Your task to perform on an android device: Go to Maps Image 0: 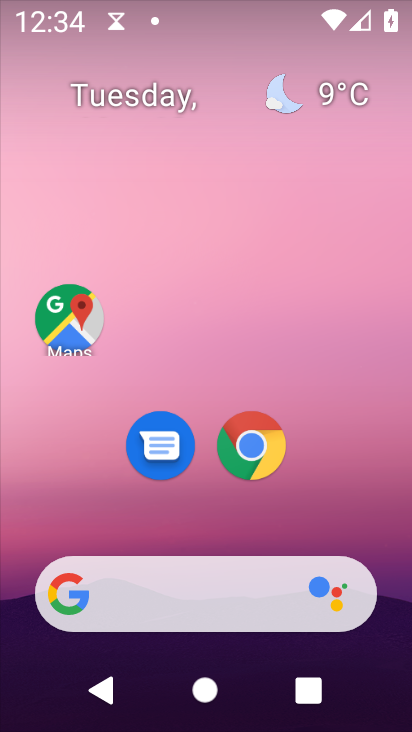
Step 0: drag from (347, 580) to (333, 68)
Your task to perform on an android device: Go to Maps Image 1: 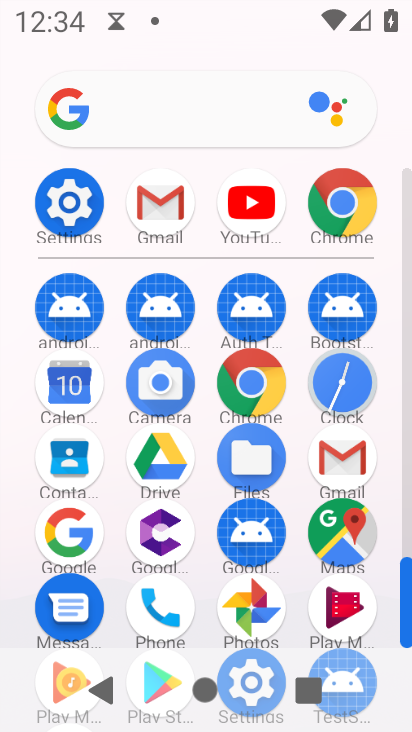
Step 1: click (317, 532)
Your task to perform on an android device: Go to Maps Image 2: 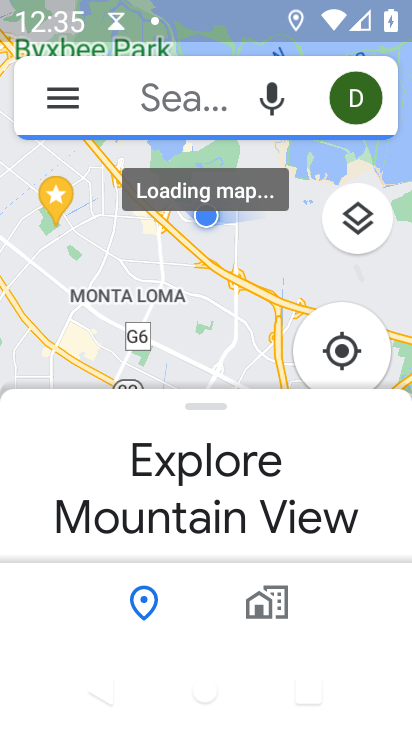
Step 2: press back button
Your task to perform on an android device: Go to Maps Image 3: 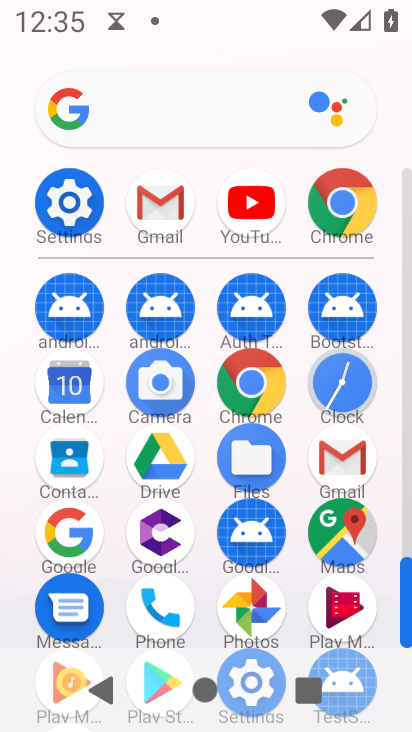
Step 3: click (338, 516)
Your task to perform on an android device: Go to Maps Image 4: 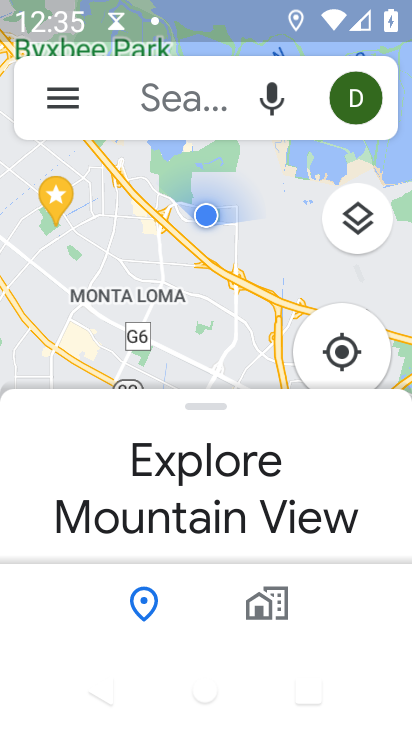
Step 4: task complete